Your task to perform on an android device: turn off airplane mode Image 0: 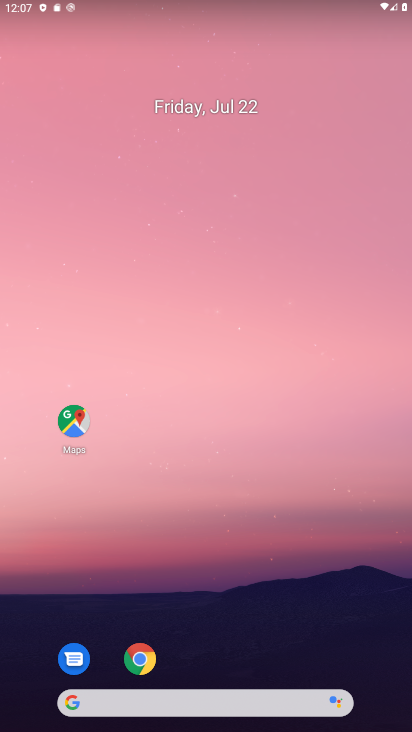
Step 0: drag from (250, 637) to (247, 512)
Your task to perform on an android device: turn off airplane mode Image 1: 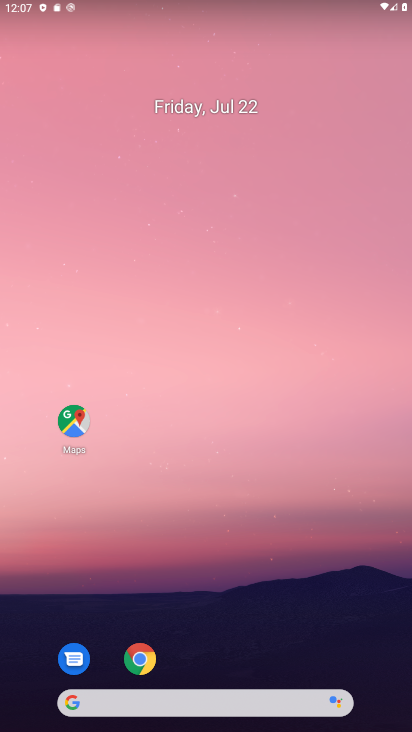
Step 1: task complete